Your task to perform on an android device: Open the web browser Image 0: 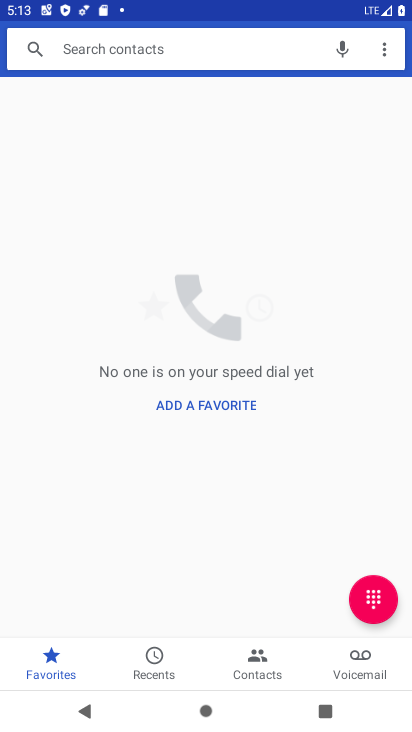
Step 0: press back button
Your task to perform on an android device: Open the web browser Image 1: 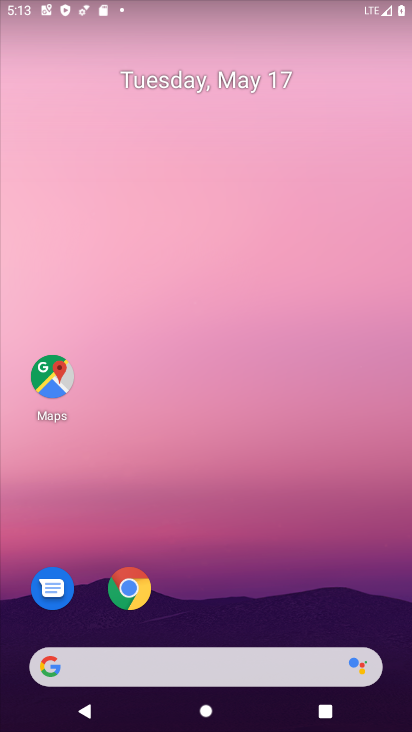
Step 1: click (128, 586)
Your task to perform on an android device: Open the web browser Image 2: 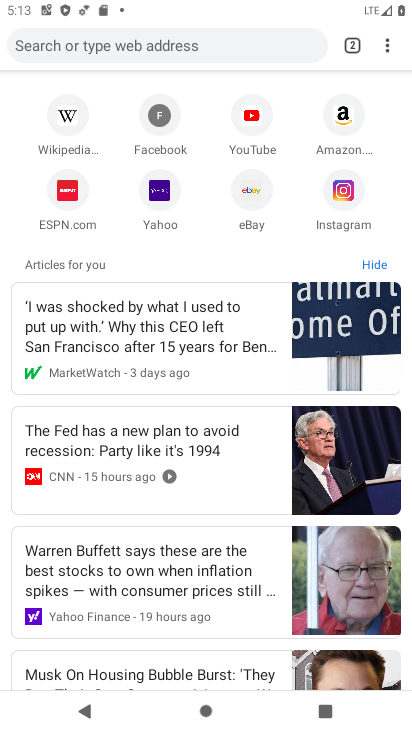
Step 2: task complete